Your task to perform on an android device: Search for vegetarian restaurants on Maps Image 0: 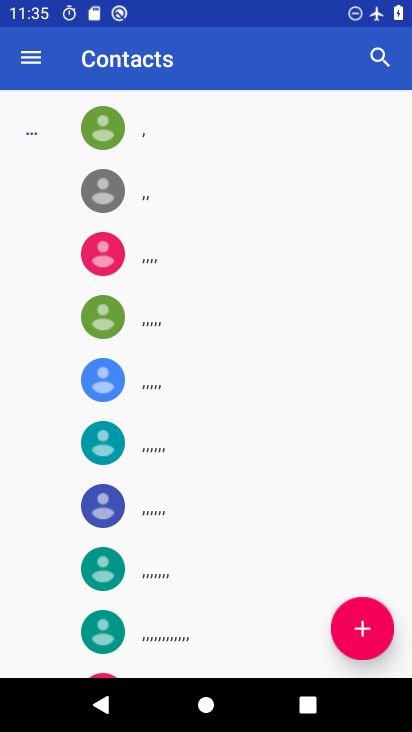
Step 0: press home button
Your task to perform on an android device: Search for vegetarian restaurants on Maps Image 1: 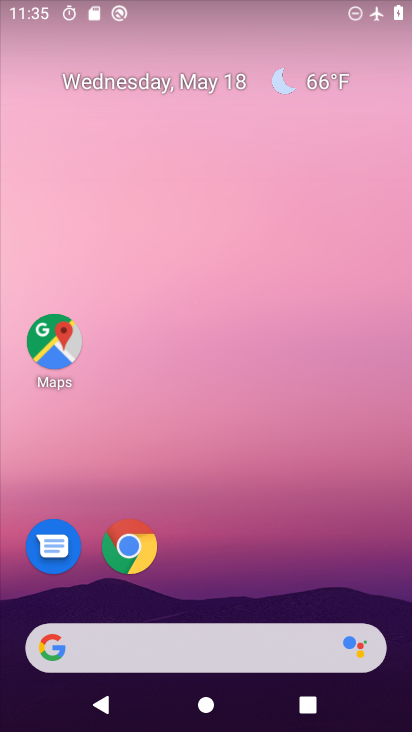
Step 1: click (61, 356)
Your task to perform on an android device: Search for vegetarian restaurants on Maps Image 2: 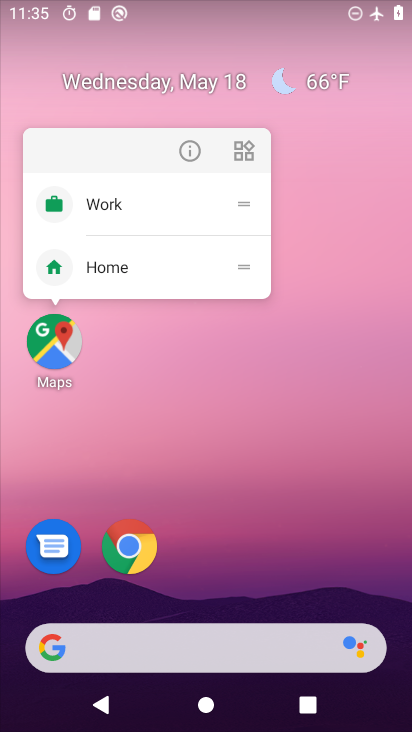
Step 2: click (147, 263)
Your task to perform on an android device: Search for vegetarian restaurants on Maps Image 3: 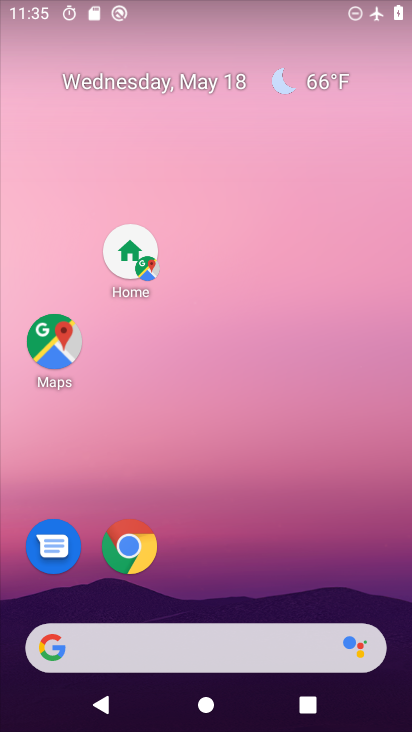
Step 3: click (124, 254)
Your task to perform on an android device: Search for vegetarian restaurants on Maps Image 4: 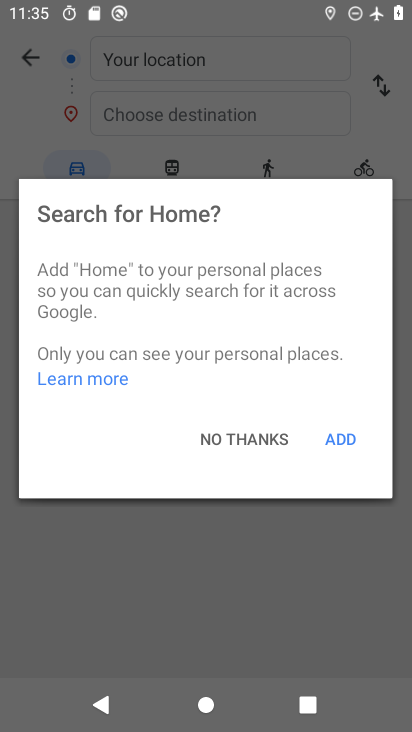
Step 4: click (268, 432)
Your task to perform on an android device: Search for vegetarian restaurants on Maps Image 5: 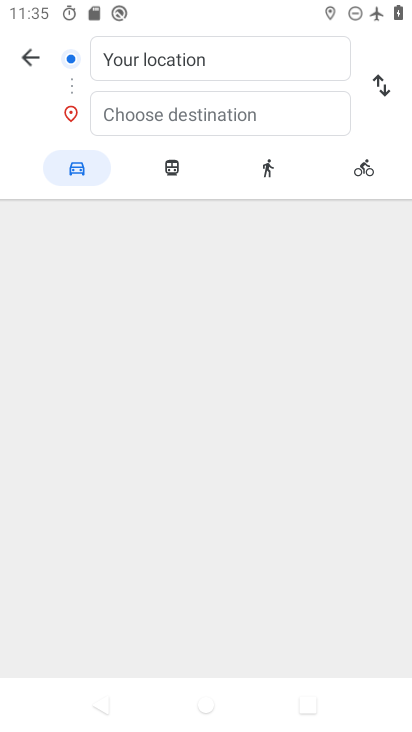
Step 5: click (36, 70)
Your task to perform on an android device: Search for vegetarian restaurants on Maps Image 6: 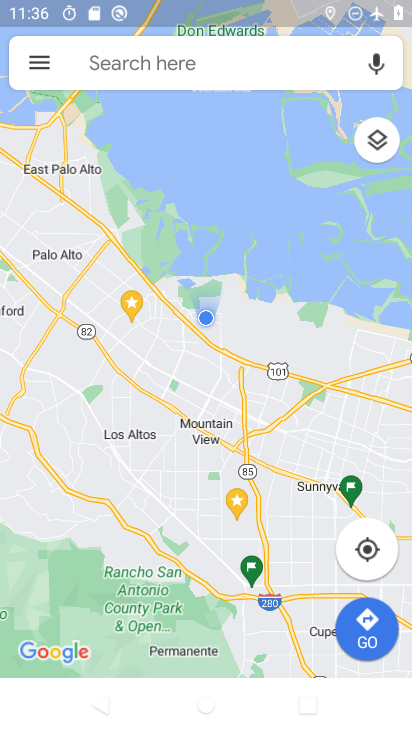
Step 6: click (121, 57)
Your task to perform on an android device: Search for vegetarian restaurants on Maps Image 7: 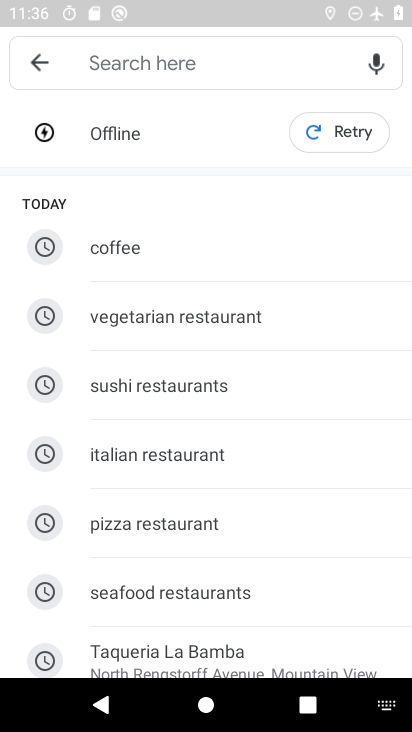
Step 7: click (202, 338)
Your task to perform on an android device: Search for vegetarian restaurants on Maps Image 8: 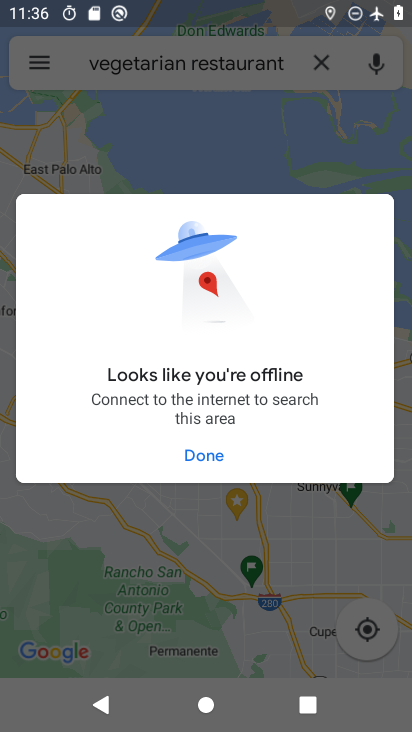
Step 8: click (207, 460)
Your task to perform on an android device: Search for vegetarian restaurants on Maps Image 9: 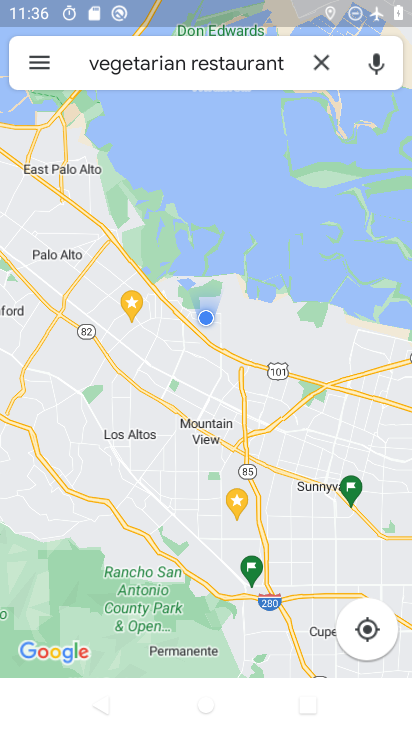
Step 9: click (281, 63)
Your task to perform on an android device: Search for vegetarian restaurants on Maps Image 10: 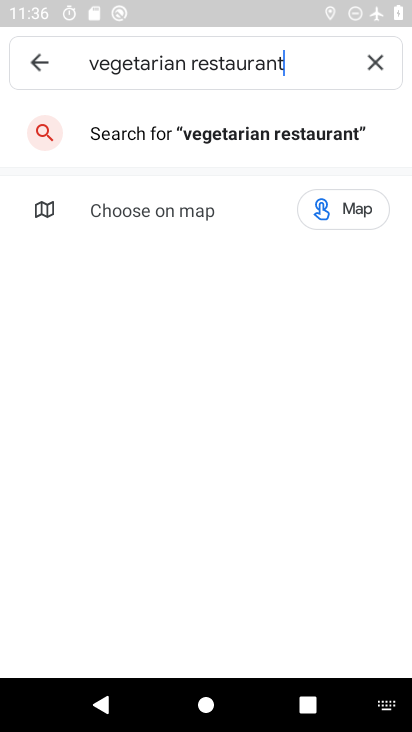
Step 10: click (237, 133)
Your task to perform on an android device: Search for vegetarian restaurants on Maps Image 11: 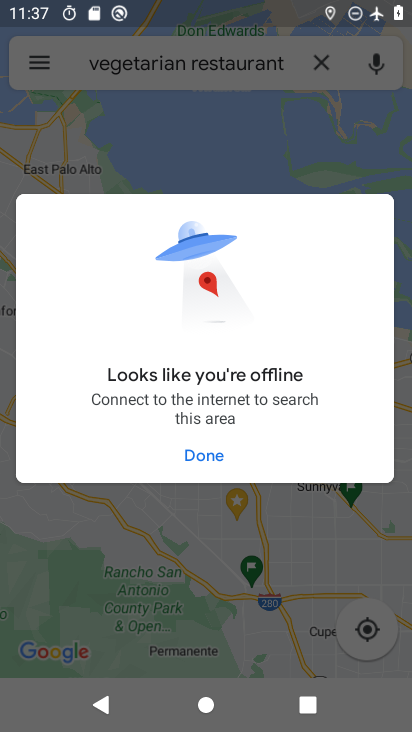
Step 11: drag from (267, 565) to (259, 635)
Your task to perform on an android device: Search for vegetarian restaurants on Maps Image 12: 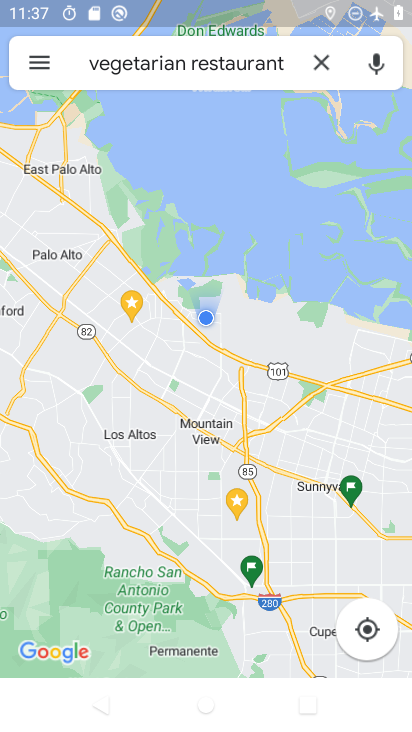
Step 12: drag from (219, 15) to (253, 621)
Your task to perform on an android device: Search for vegetarian restaurants on Maps Image 13: 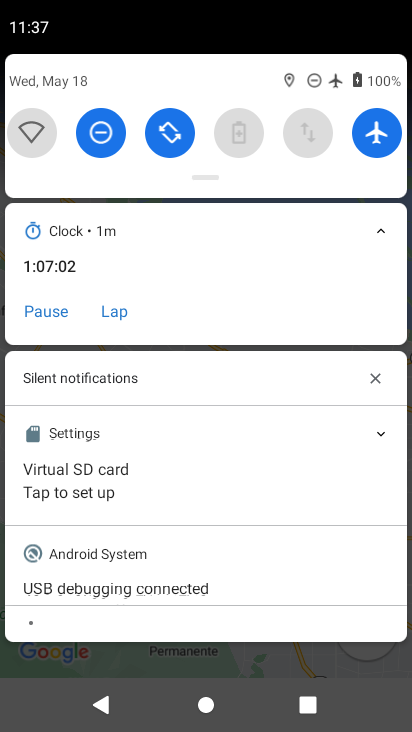
Step 13: click (384, 129)
Your task to perform on an android device: Search for vegetarian restaurants on Maps Image 14: 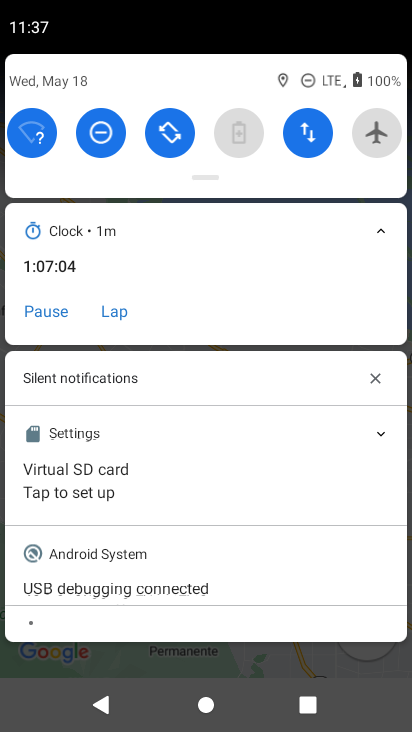
Step 14: task complete